Your task to perform on an android device: Open notification settings Image 0: 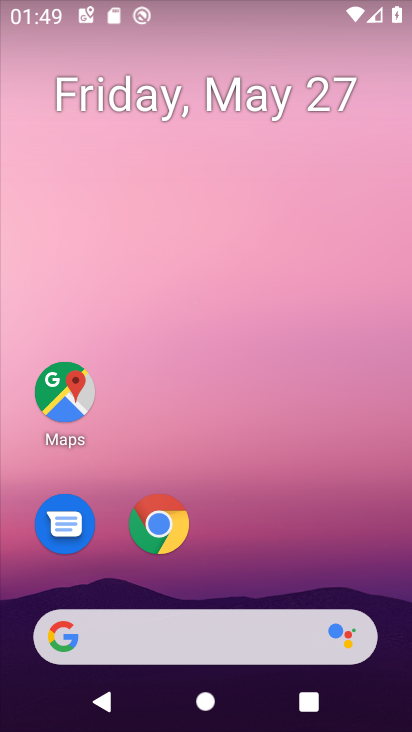
Step 0: drag from (257, 565) to (293, 55)
Your task to perform on an android device: Open notification settings Image 1: 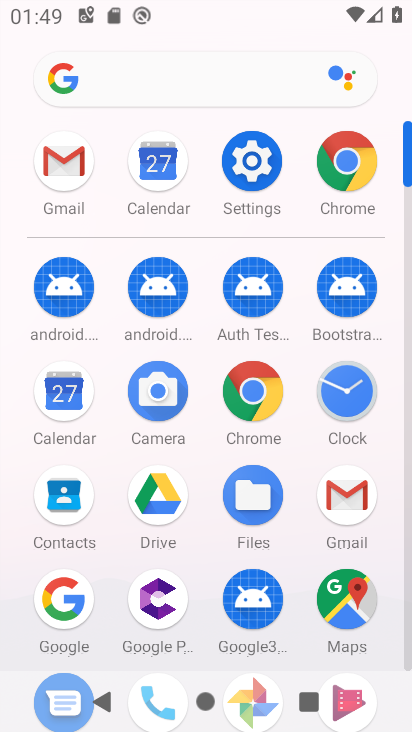
Step 1: click (263, 158)
Your task to perform on an android device: Open notification settings Image 2: 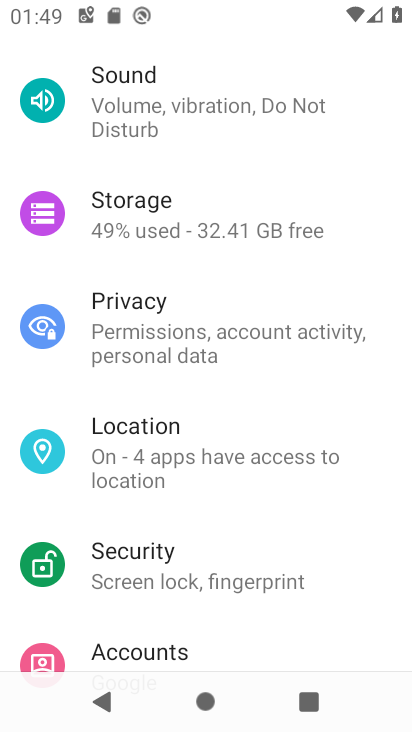
Step 2: drag from (263, 170) to (244, 632)
Your task to perform on an android device: Open notification settings Image 3: 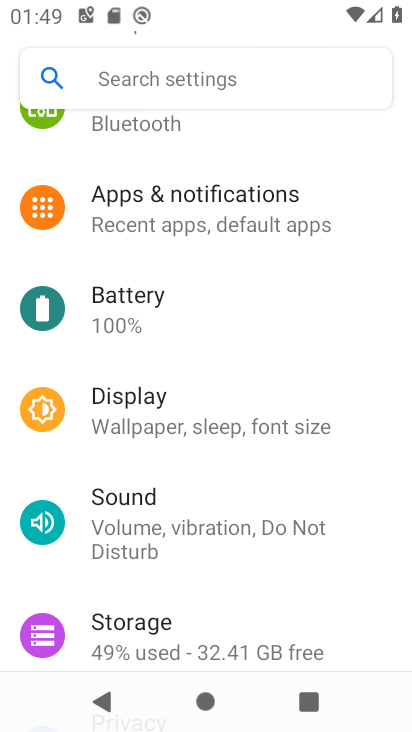
Step 3: click (245, 208)
Your task to perform on an android device: Open notification settings Image 4: 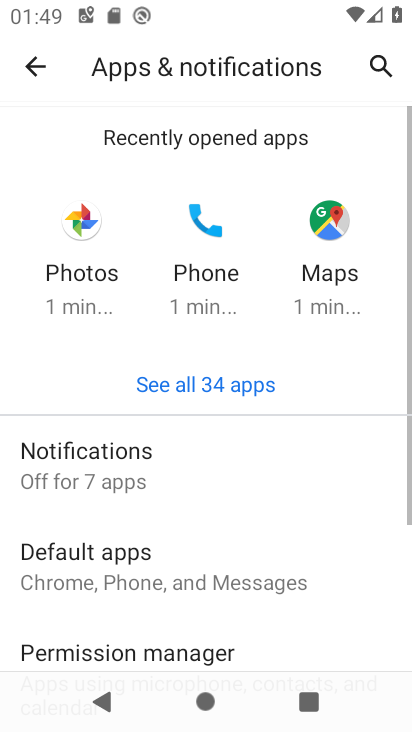
Step 4: click (98, 466)
Your task to perform on an android device: Open notification settings Image 5: 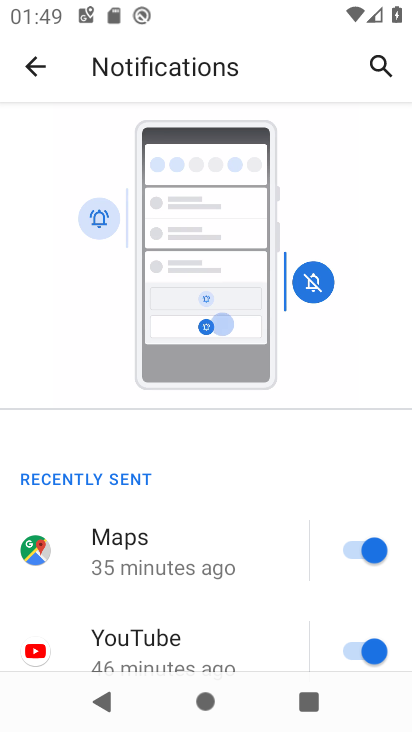
Step 5: task complete